Your task to perform on an android device: set an alarm Image 0: 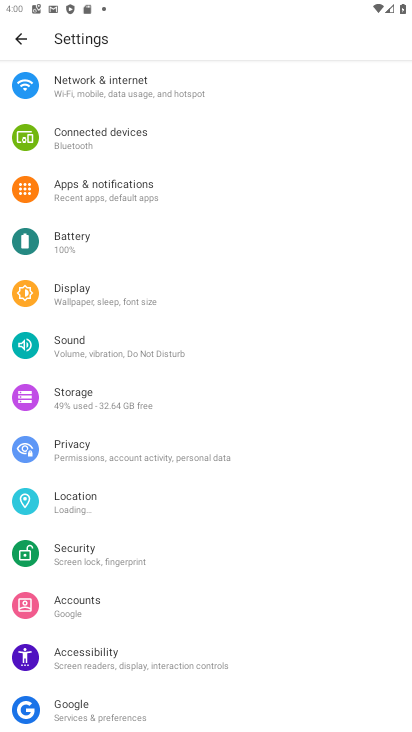
Step 0: press home button
Your task to perform on an android device: set an alarm Image 1: 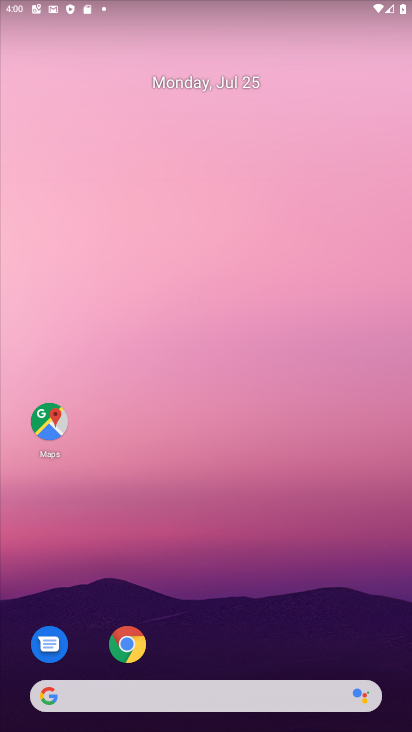
Step 1: drag from (279, 603) to (216, 69)
Your task to perform on an android device: set an alarm Image 2: 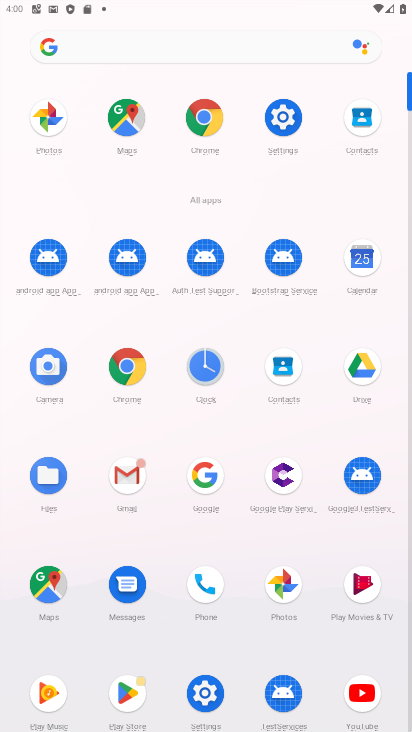
Step 2: click (207, 365)
Your task to perform on an android device: set an alarm Image 3: 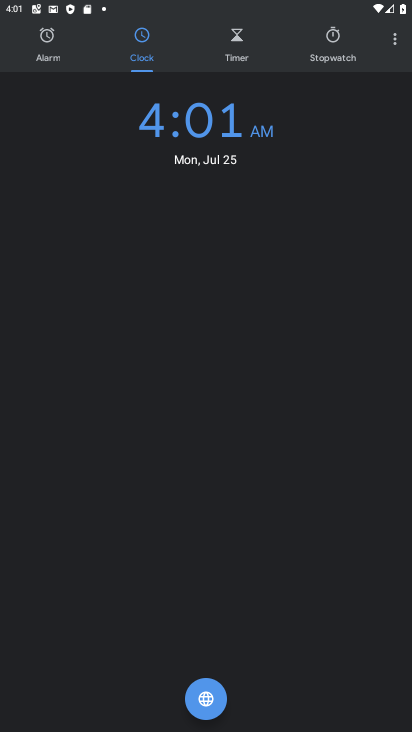
Step 3: click (43, 42)
Your task to perform on an android device: set an alarm Image 4: 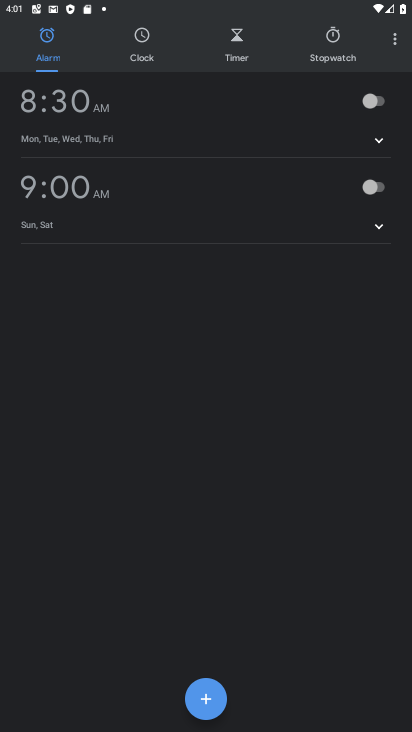
Step 4: click (208, 703)
Your task to perform on an android device: set an alarm Image 5: 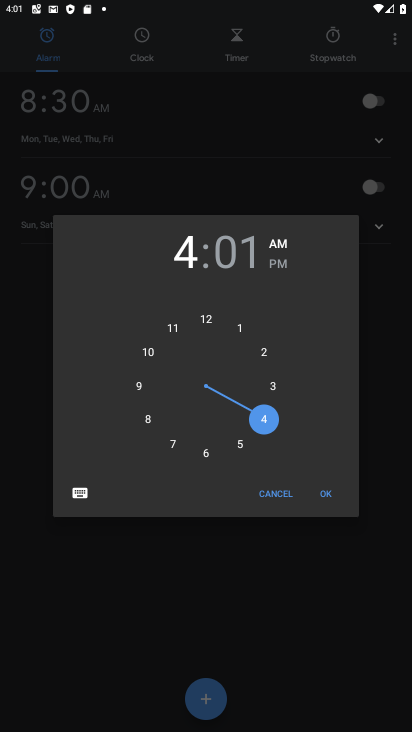
Step 5: click (268, 379)
Your task to perform on an android device: set an alarm Image 6: 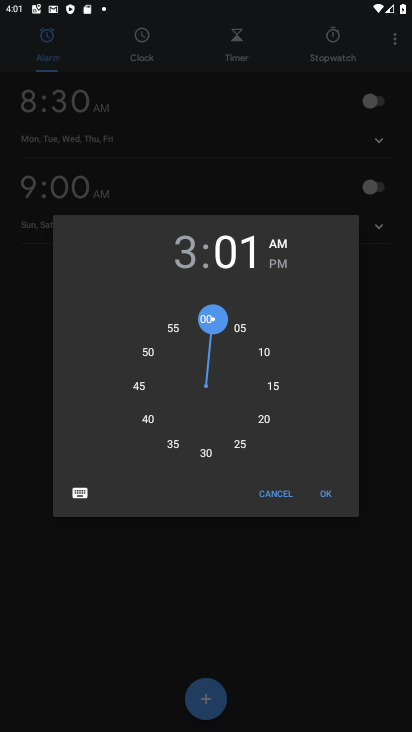
Step 6: click (264, 343)
Your task to perform on an android device: set an alarm Image 7: 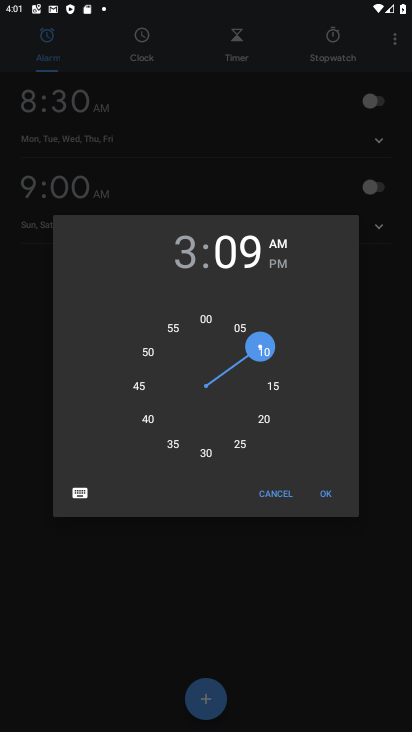
Step 7: click (330, 493)
Your task to perform on an android device: set an alarm Image 8: 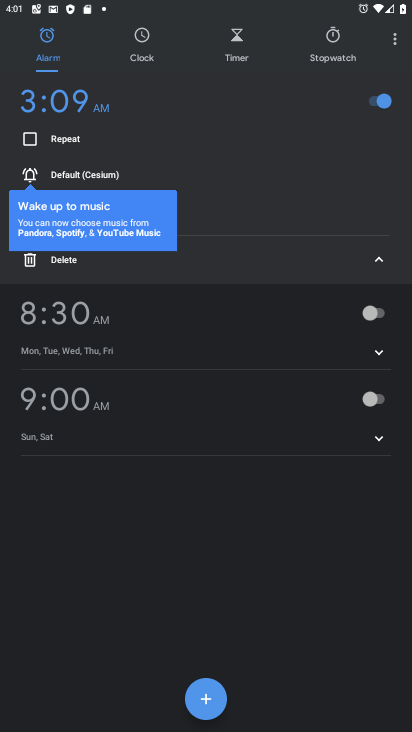
Step 8: click (34, 137)
Your task to perform on an android device: set an alarm Image 9: 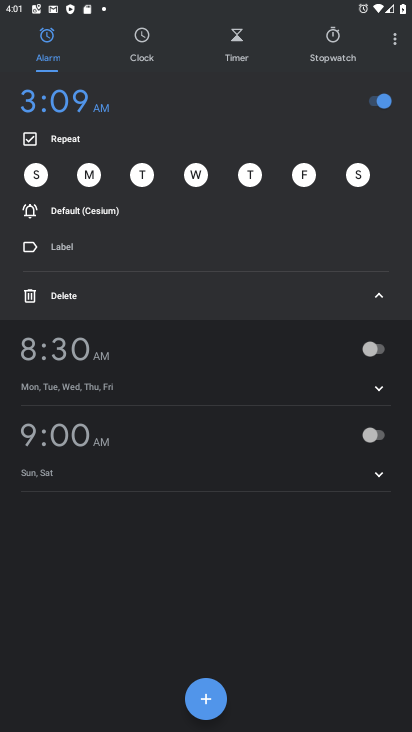
Step 9: task complete